Your task to perform on an android device: Go to battery settings Image 0: 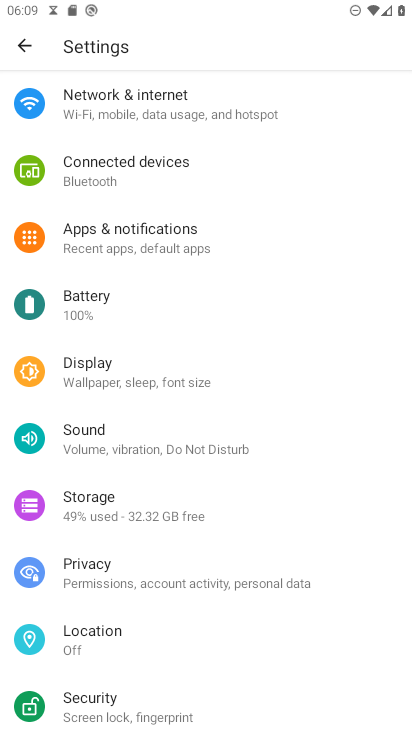
Step 0: click (103, 293)
Your task to perform on an android device: Go to battery settings Image 1: 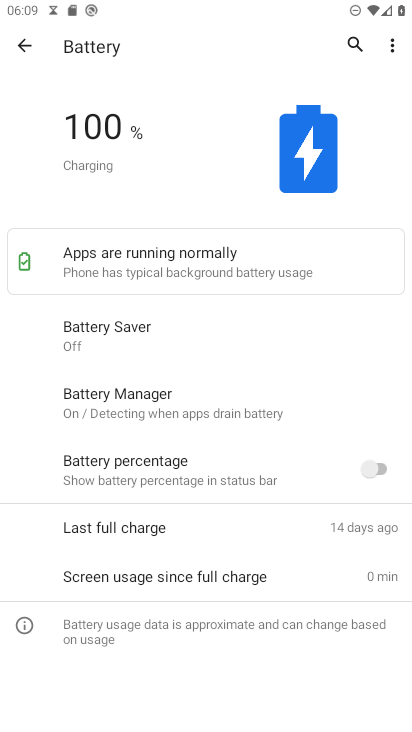
Step 1: task complete